Your task to perform on an android device: Search for pizza restaurants on Maps Image 0: 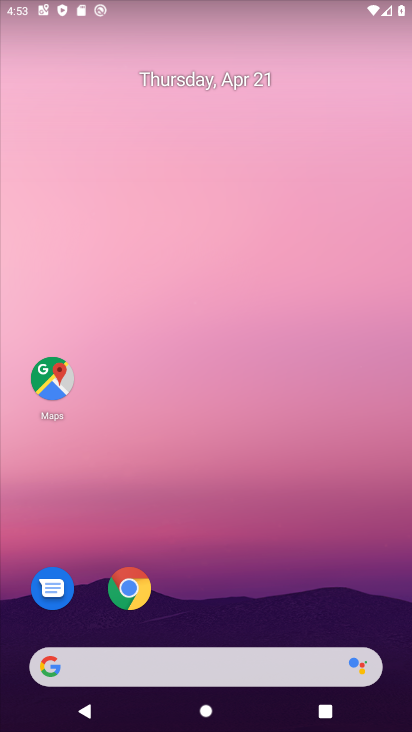
Step 0: click (46, 378)
Your task to perform on an android device: Search for pizza restaurants on Maps Image 1: 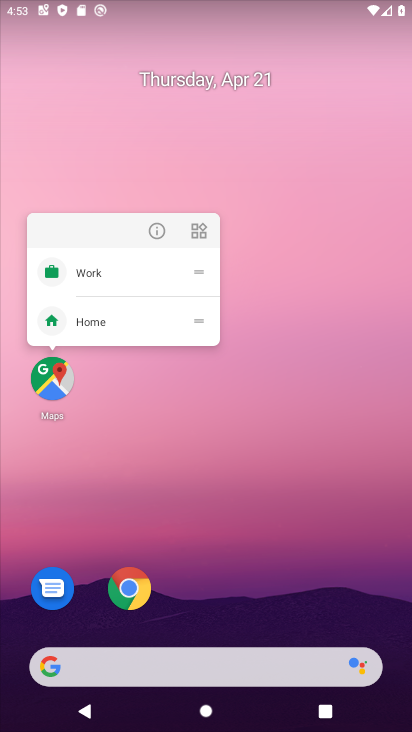
Step 1: click (52, 373)
Your task to perform on an android device: Search for pizza restaurants on Maps Image 2: 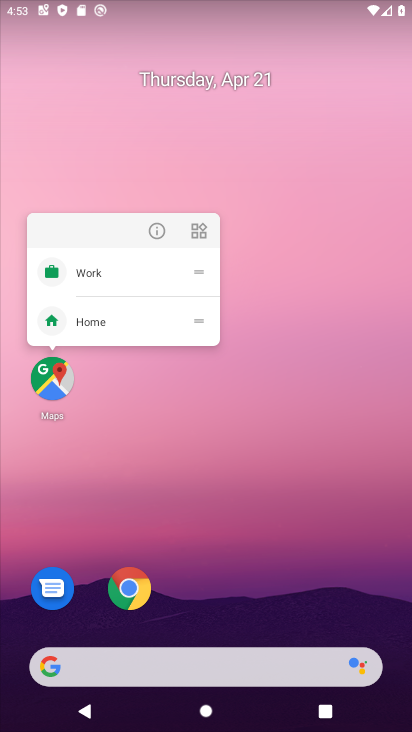
Step 2: click (49, 376)
Your task to perform on an android device: Search for pizza restaurants on Maps Image 3: 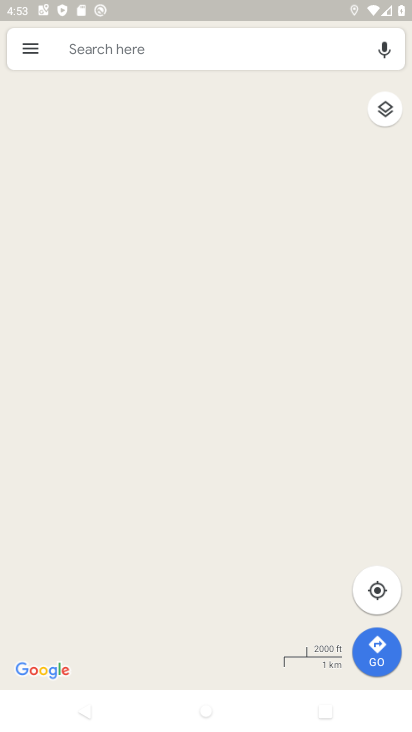
Step 3: click (185, 59)
Your task to perform on an android device: Search for pizza restaurants on Maps Image 4: 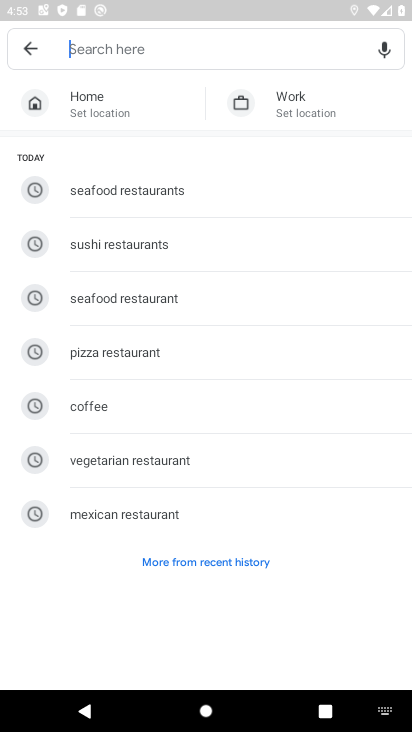
Step 4: click (146, 346)
Your task to perform on an android device: Search for pizza restaurants on Maps Image 5: 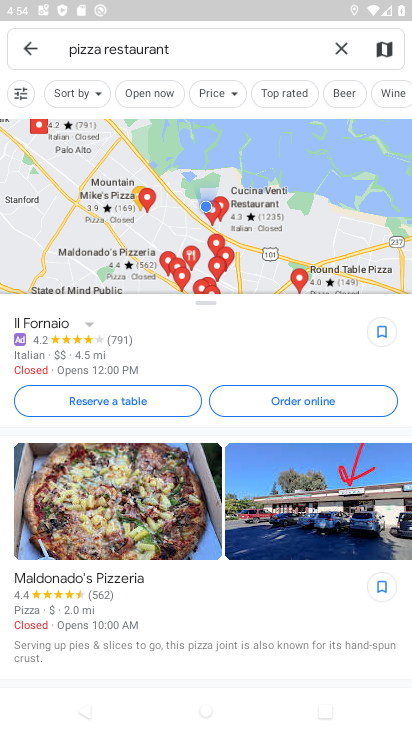
Step 5: task complete